Your task to perform on an android device: toggle improve location accuracy Image 0: 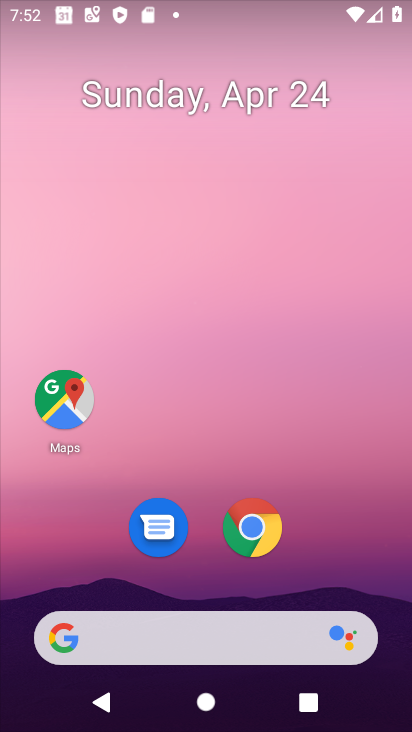
Step 0: drag from (366, 589) to (268, 50)
Your task to perform on an android device: toggle improve location accuracy Image 1: 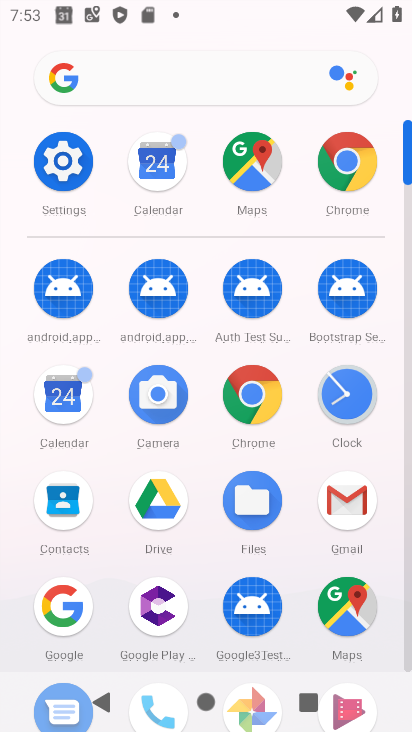
Step 1: click (60, 159)
Your task to perform on an android device: toggle improve location accuracy Image 2: 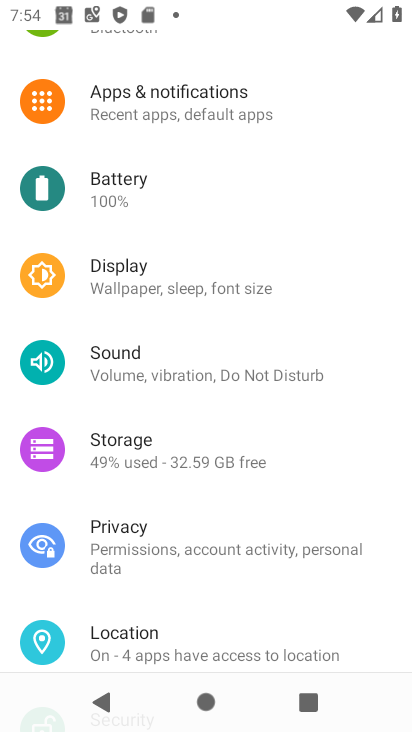
Step 2: click (168, 654)
Your task to perform on an android device: toggle improve location accuracy Image 3: 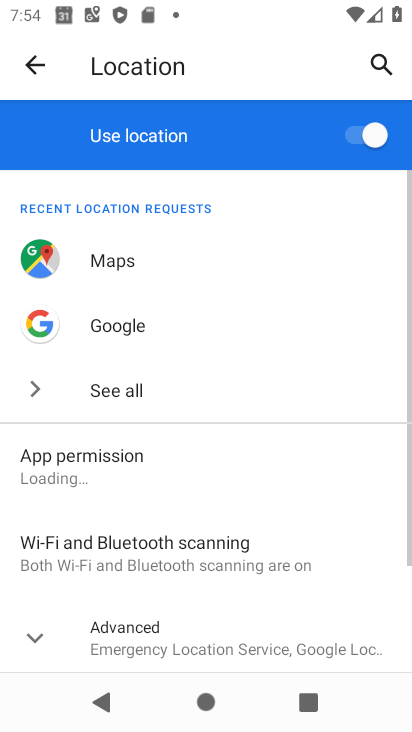
Step 3: click (164, 634)
Your task to perform on an android device: toggle improve location accuracy Image 4: 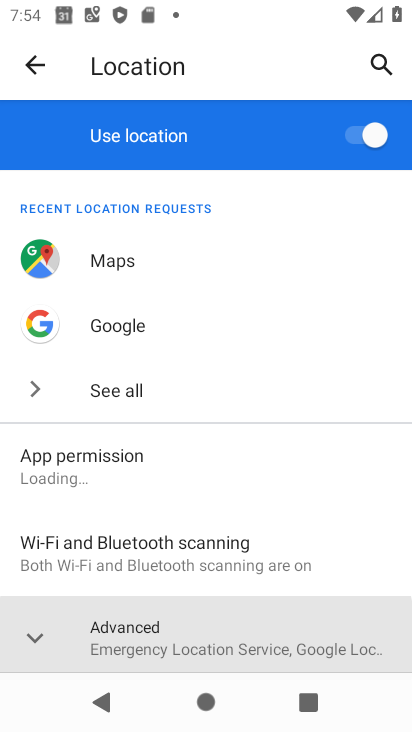
Step 4: drag from (167, 631) to (215, 248)
Your task to perform on an android device: toggle improve location accuracy Image 5: 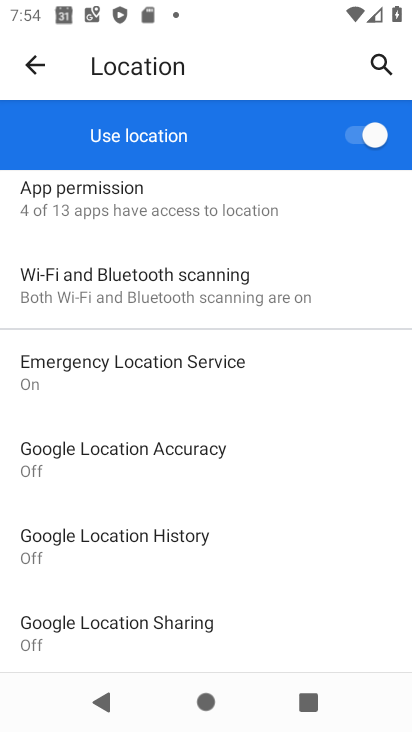
Step 5: click (171, 462)
Your task to perform on an android device: toggle improve location accuracy Image 6: 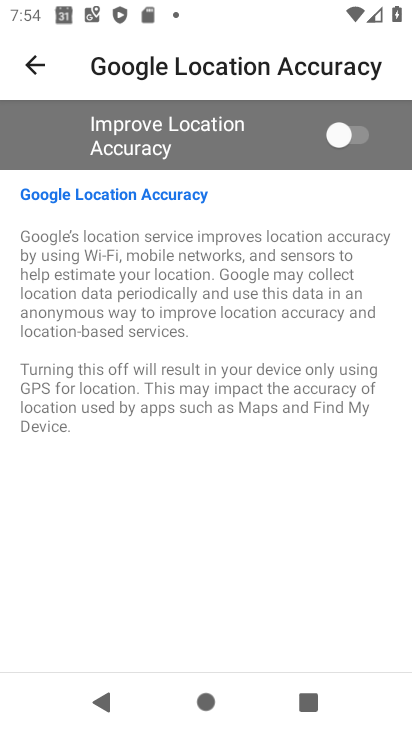
Step 6: click (299, 139)
Your task to perform on an android device: toggle improve location accuracy Image 7: 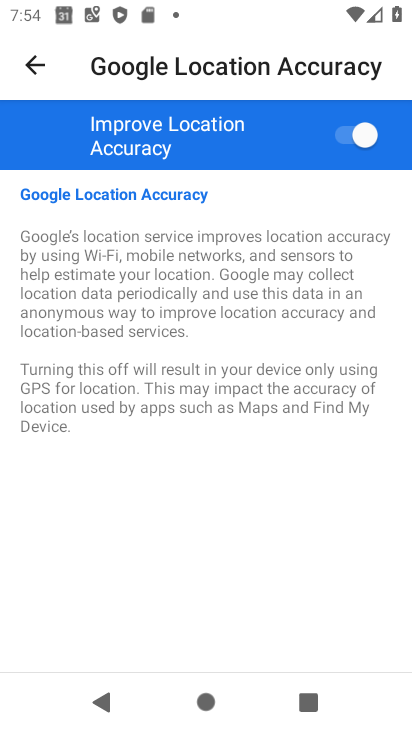
Step 7: task complete